Your task to perform on an android device: create a new album in the google photos Image 0: 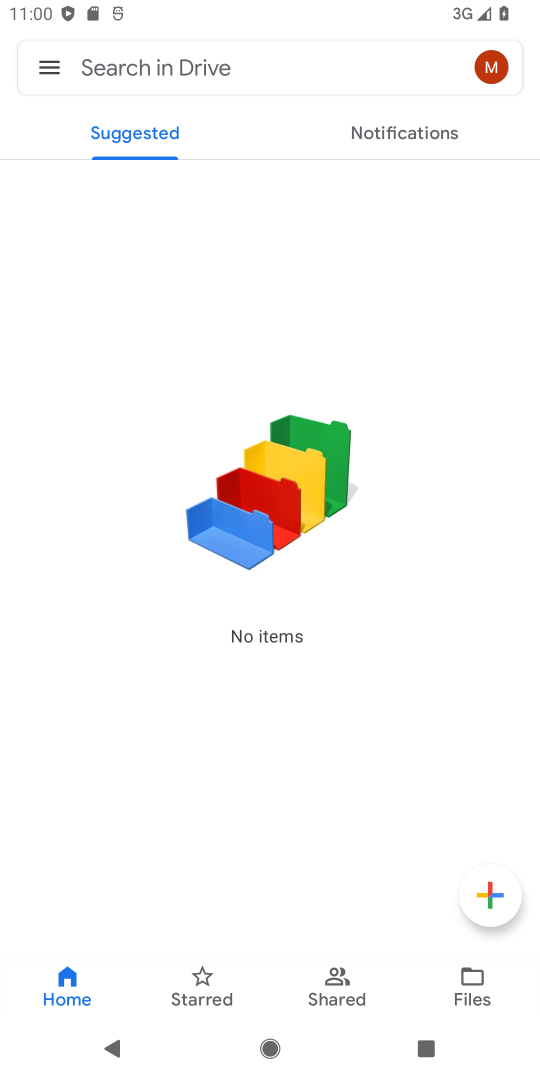
Step 0: press home button
Your task to perform on an android device: create a new album in the google photos Image 1: 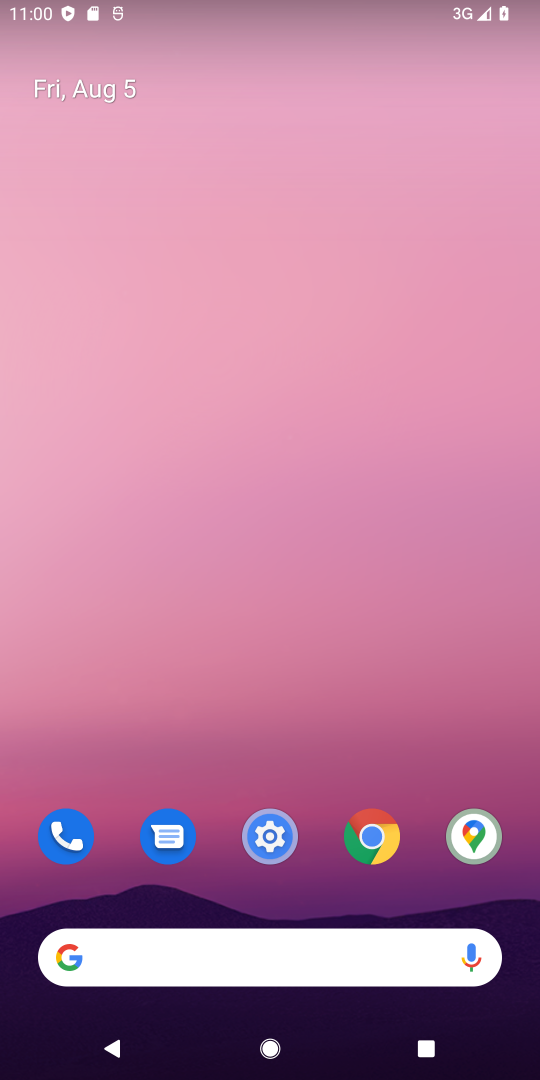
Step 1: drag from (362, 655) to (376, 220)
Your task to perform on an android device: create a new album in the google photos Image 2: 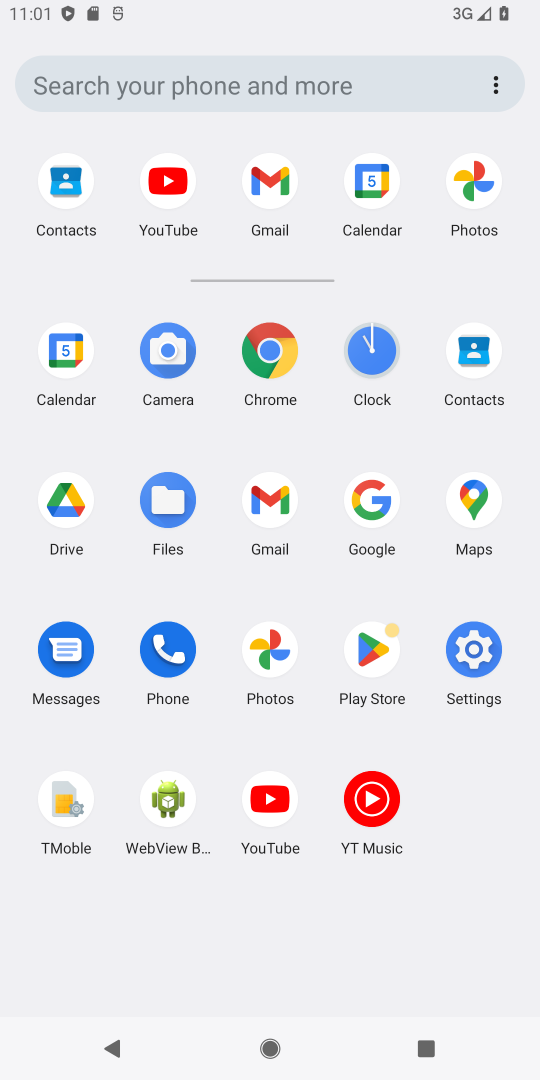
Step 2: click (256, 656)
Your task to perform on an android device: create a new album in the google photos Image 3: 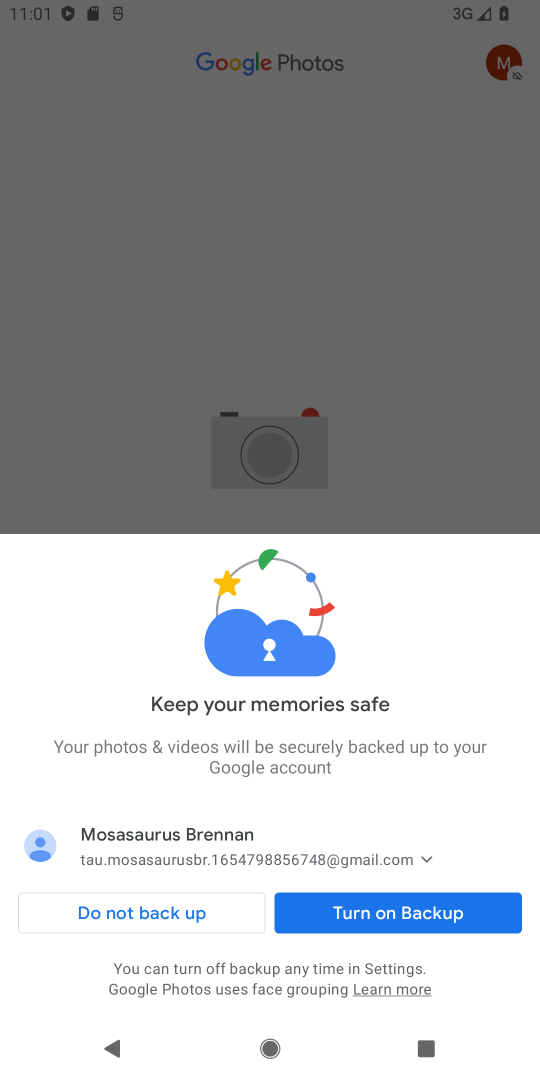
Step 3: click (382, 919)
Your task to perform on an android device: create a new album in the google photos Image 4: 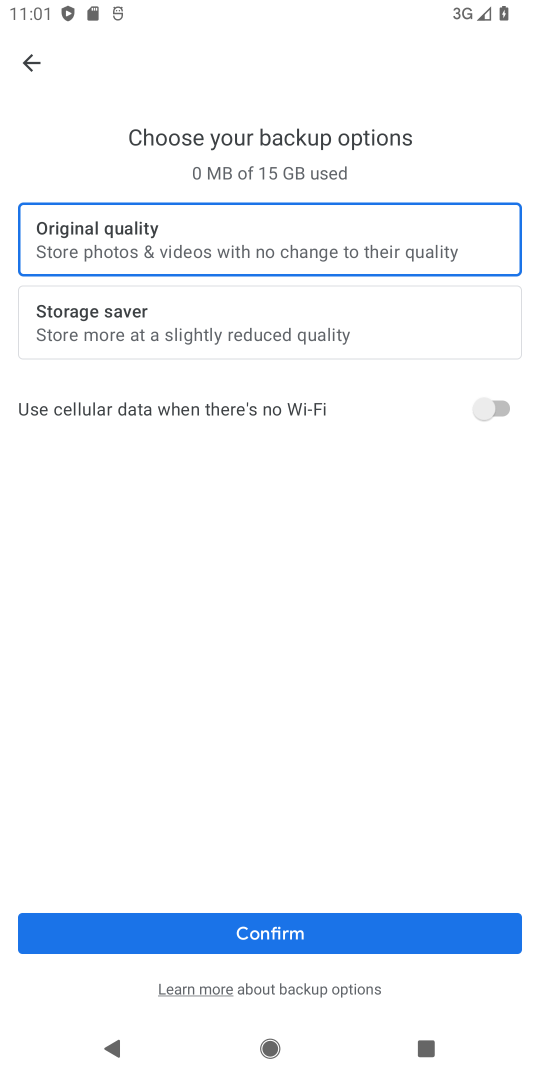
Step 4: click (315, 925)
Your task to perform on an android device: create a new album in the google photos Image 5: 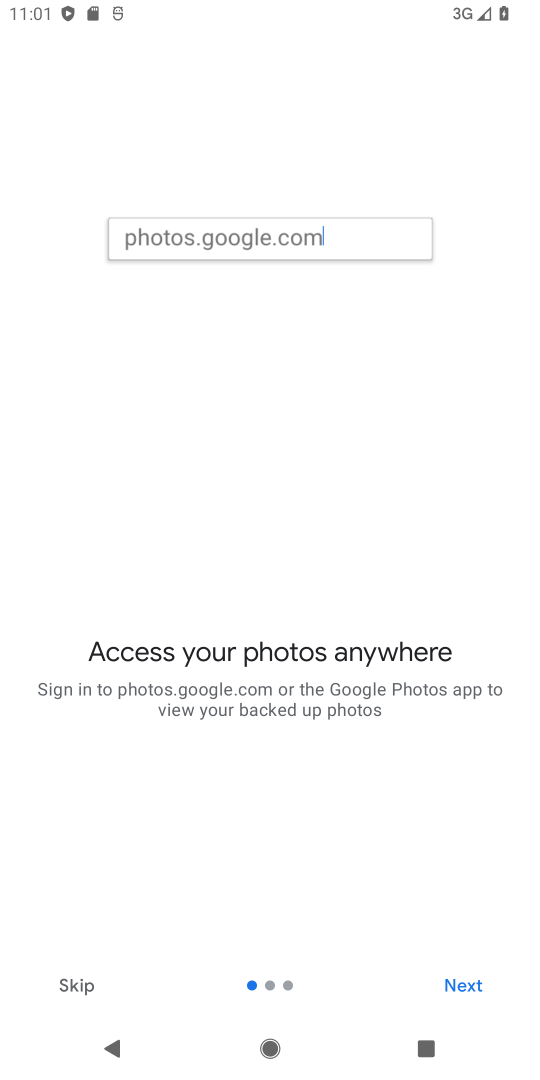
Step 5: click (468, 977)
Your task to perform on an android device: create a new album in the google photos Image 6: 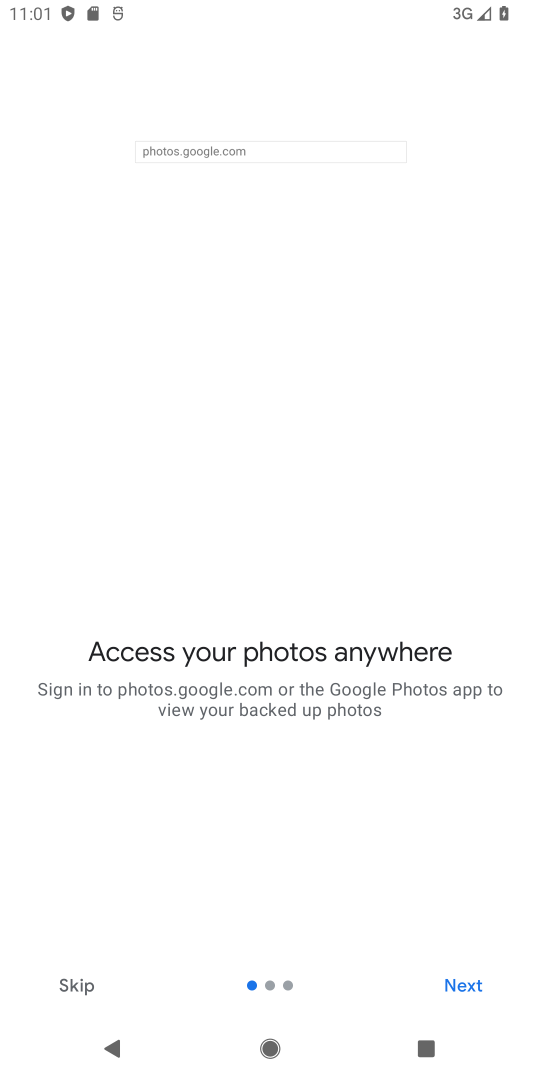
Step 6: click (468, 977)
Your task to perform on an android device: create a new album in the google photos Image 7: 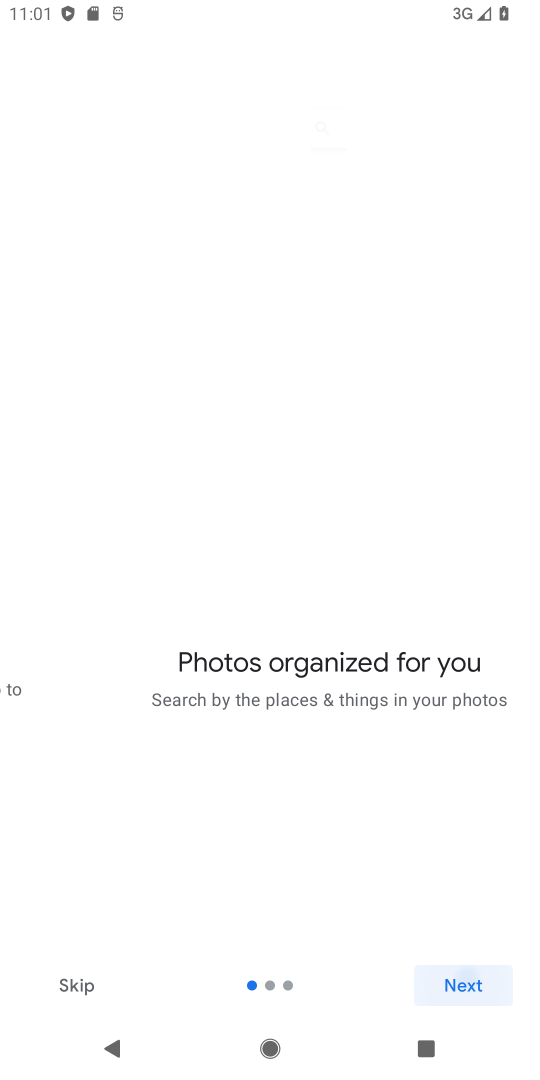
Step 7: click (468, 976)
Your task to perform on an android device: create a new album in the google photos Image 8: 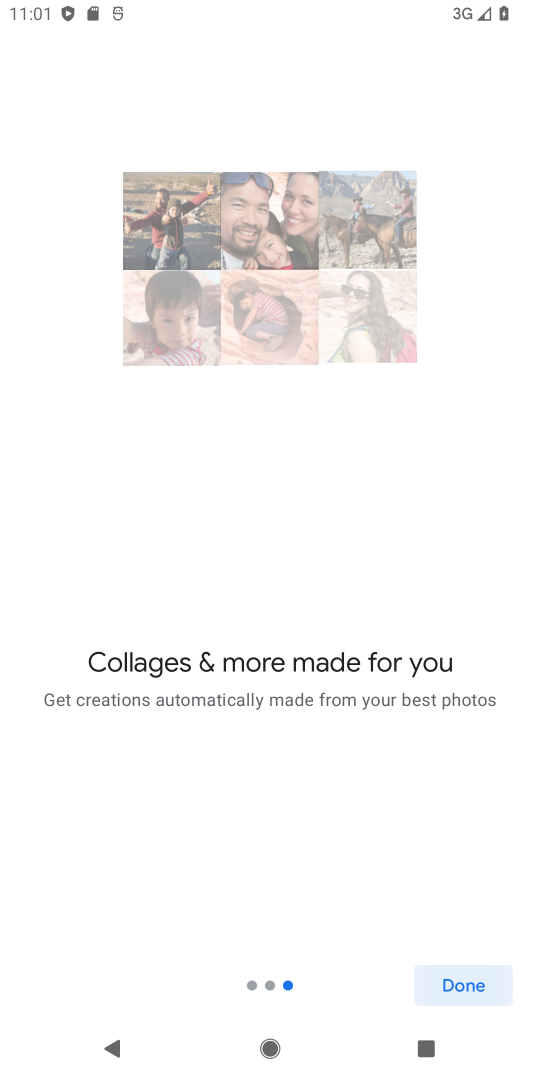
Step 8: click (468, 974)
Your task to perform on an android device: create a new album in the google photos Image 9: 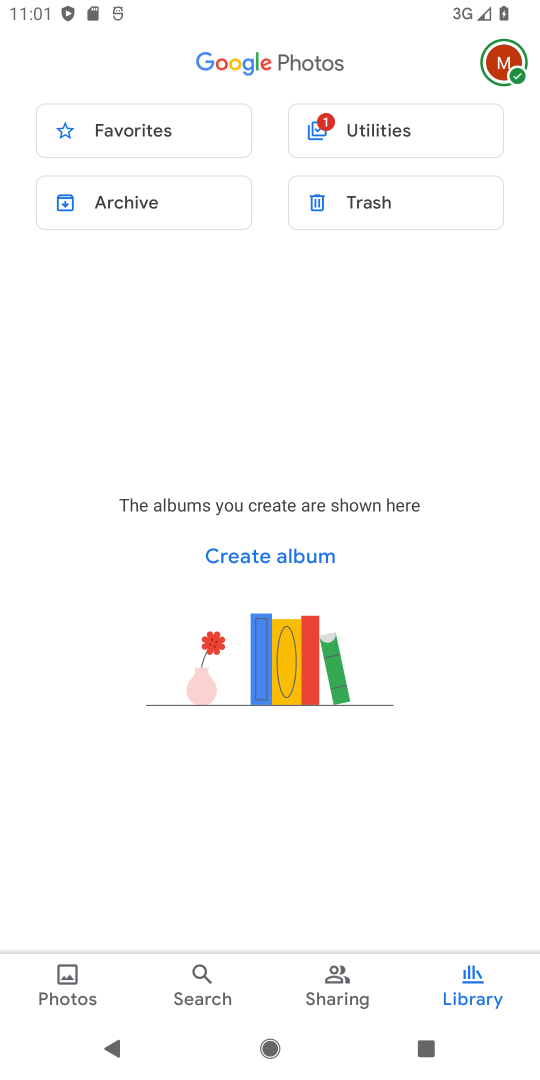
Step 9: click (64, 983)
Your task to perform on an android device: create a new album in the google photos Image 10: 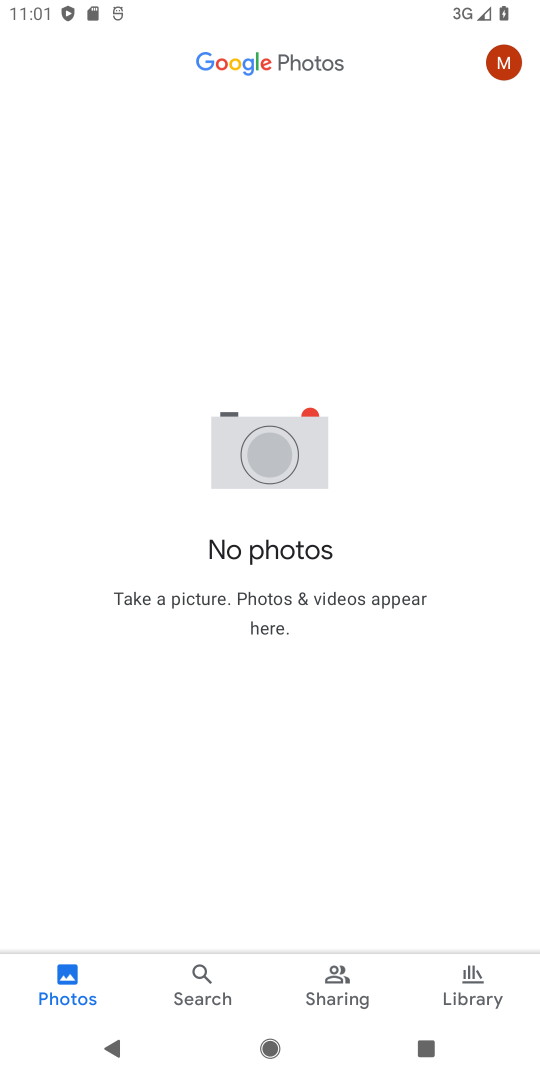
Step 10: click (331, 981)
Your task to perform on an android device: create a new album in the google photos Image 11: 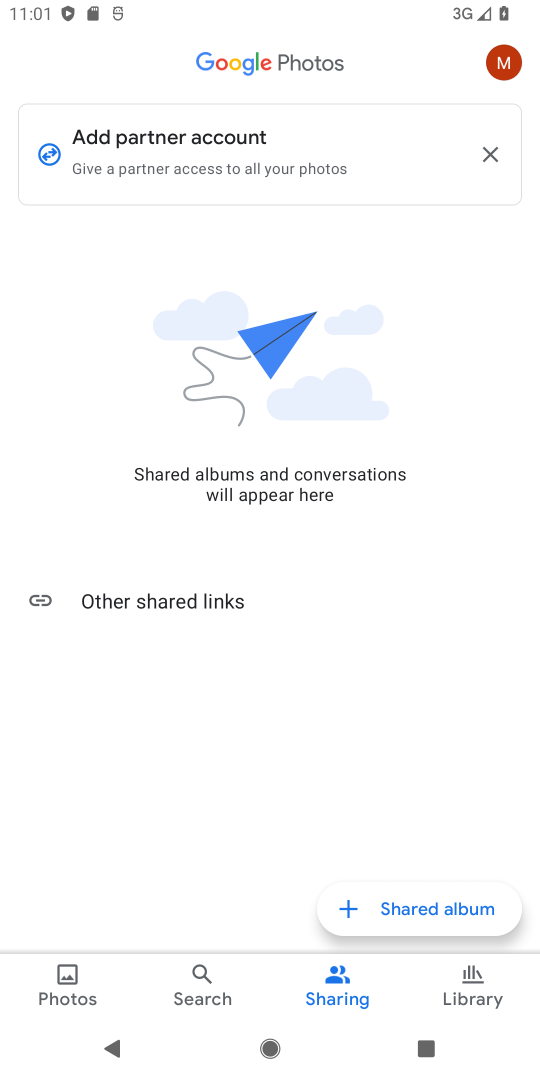
Step 11: click (484, 998)
Your task to perform on an android device: create a new album in the google photos Image 12: 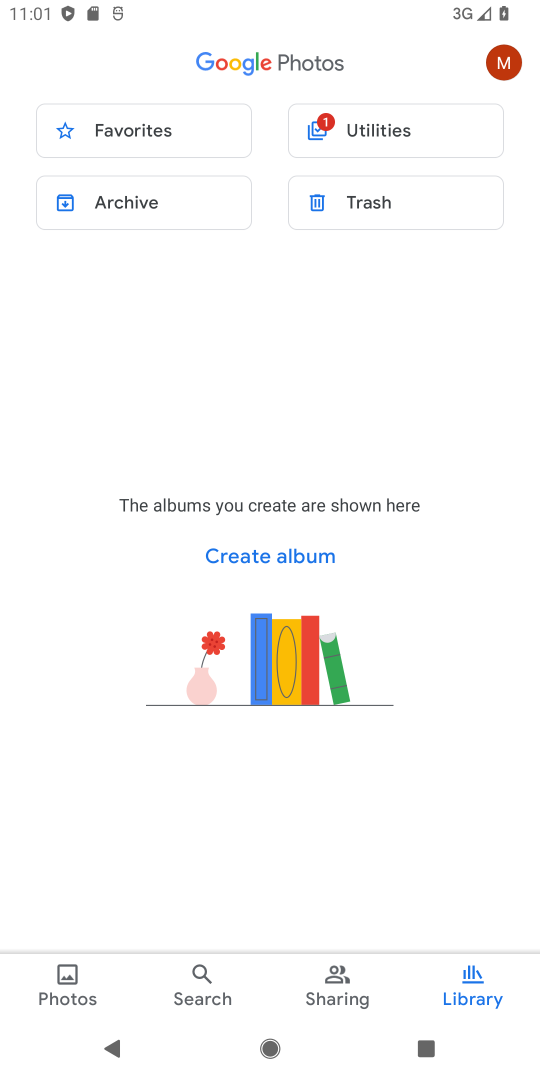
Step 12: click (283, 559)
Your task to perform on an android device: create a new album in the google photos Image 13: 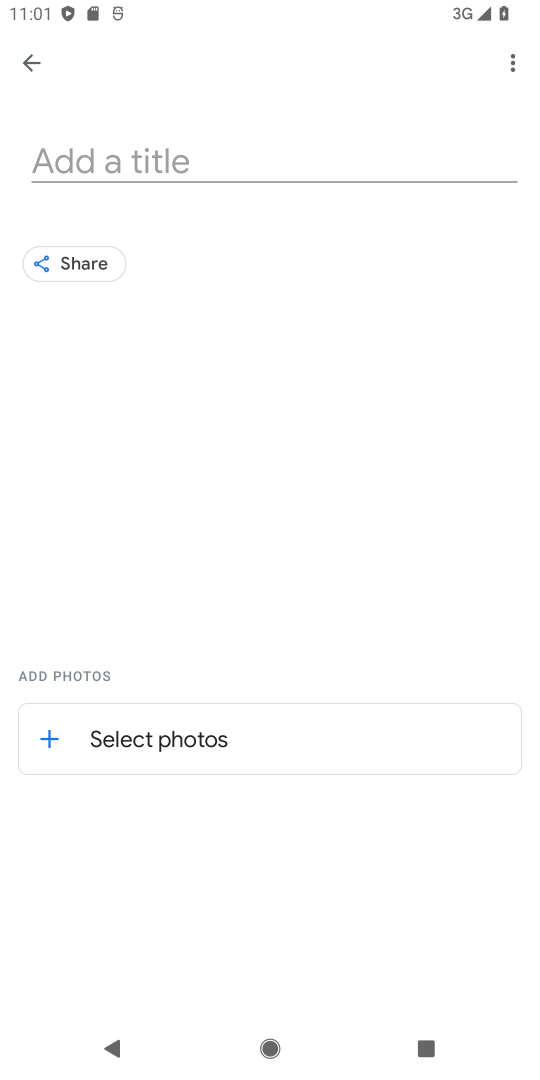
Step 13: click (340, 170)
Your task to perform on an android device: create a new album in the google photos Image 14: 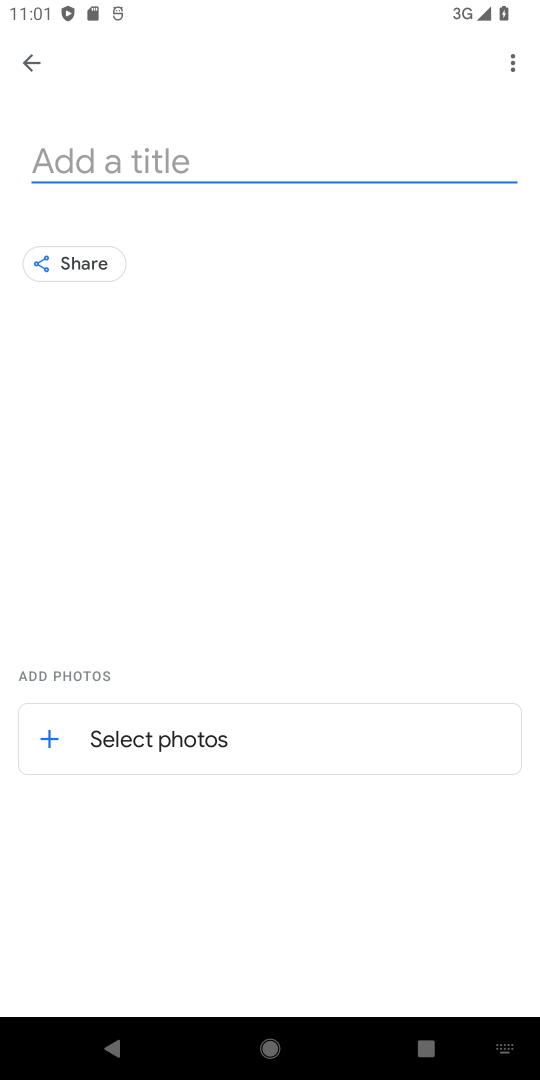
Step 14: type "wait"
Your task to perform on an android device: create a new album in the google photos Image 15: 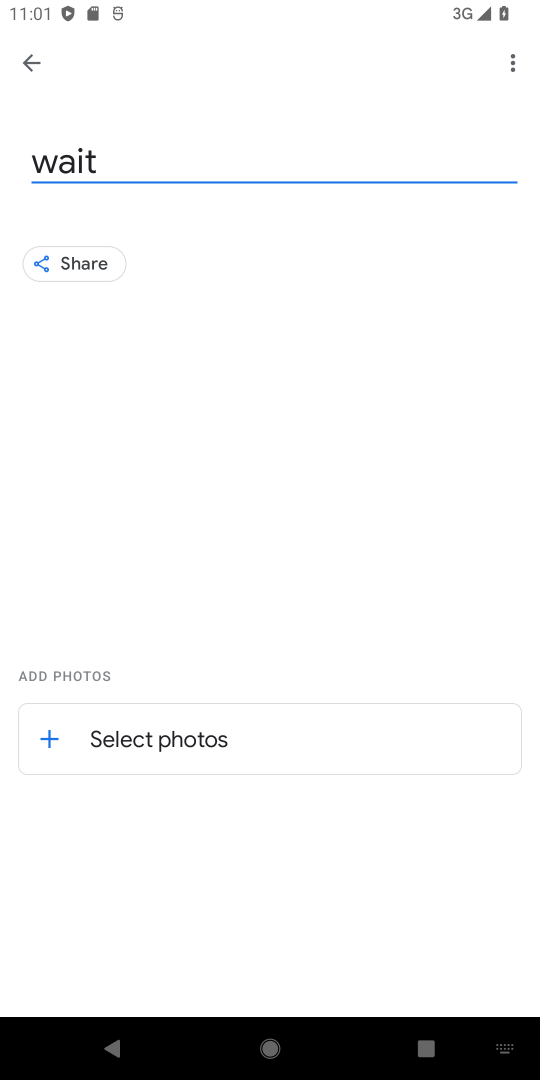
Step 15: press enter
Your task to perform on an android device: create a new album in the google photos Image 16: 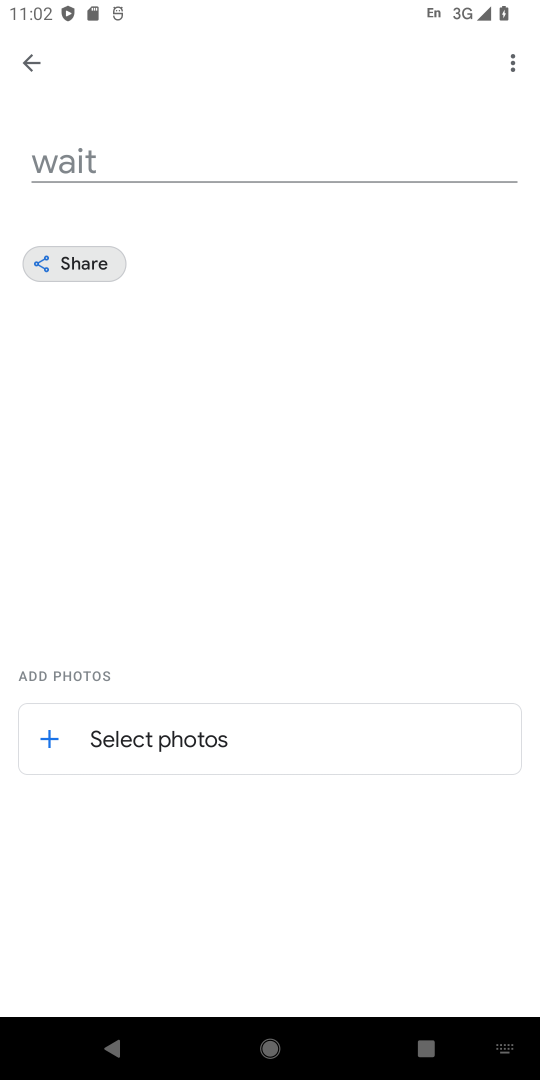
Step 16: click (239, 739)
Your task to perform on an android device: create a new album in the google photos Image 17: 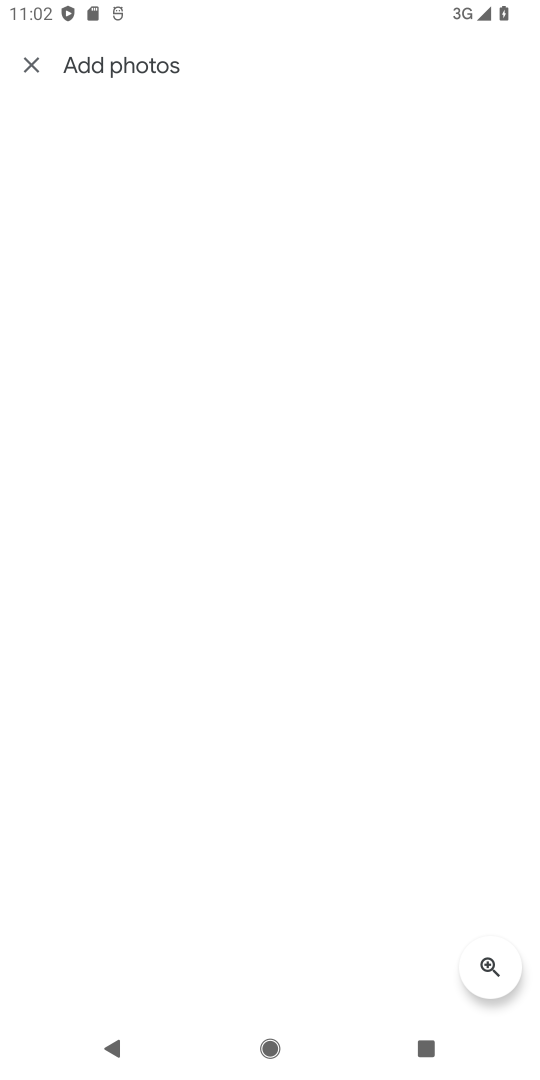
Step 17: click (26, 52)
Your task to perform on an android device: create a new album in the google photos Image 18: 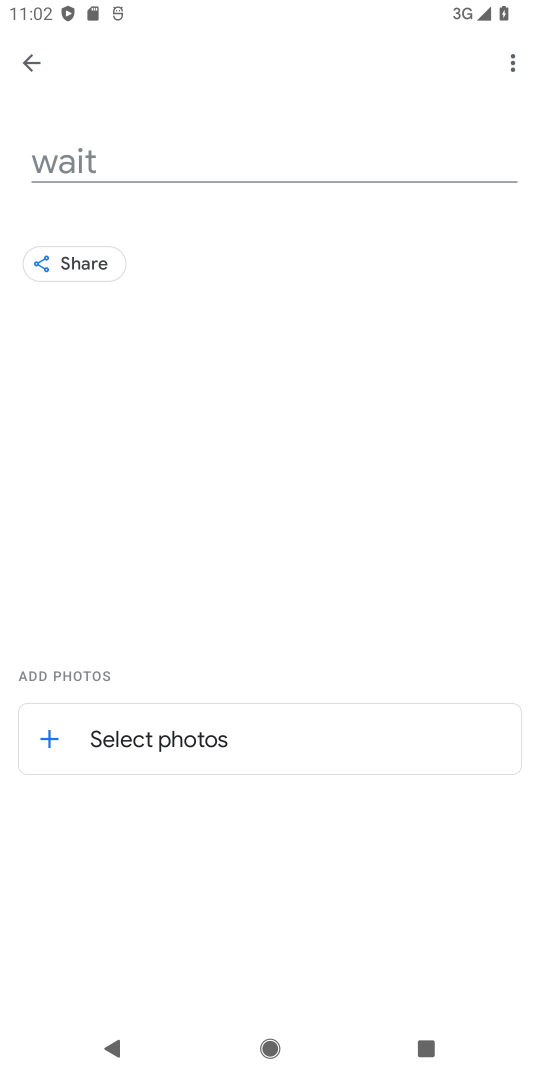
Step 18: click (511, 64)
Your task to perform on an android device: create a new album in the google photos Image 19: 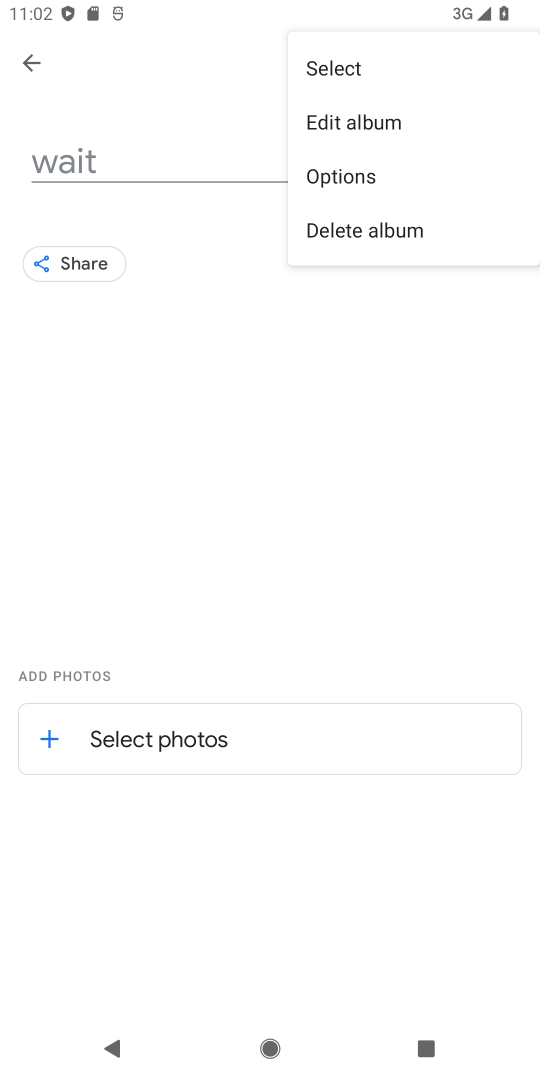
Step 19: task complete